Your task to perform on an android device: open the mobile data screen to see how much data has been used Image 0: 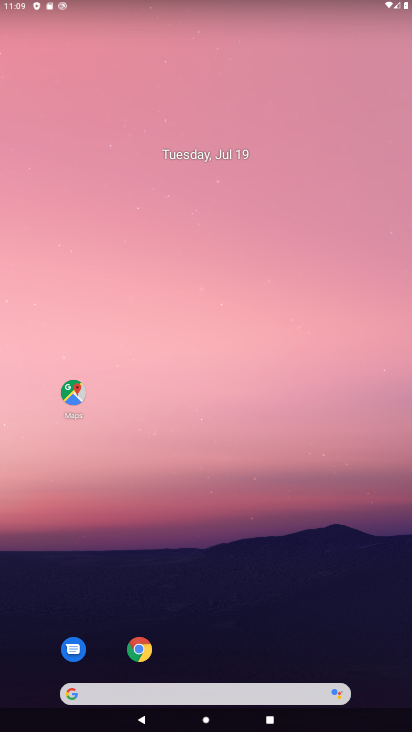
Step 0: drag from (328, 695) to (349, 88)
Your task to perform on an android device: open the mobile data screen to see how much data has been used Image 1: 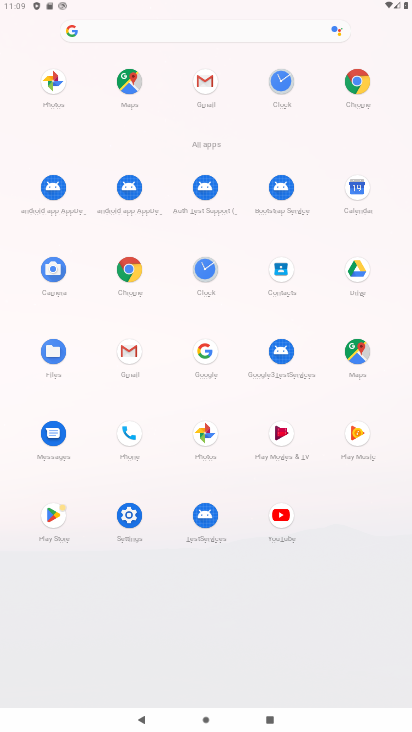
Step 1: click (126, 524)
Your task to perform on an android device: open the mobile data screen to see how much data has been used Image 2: 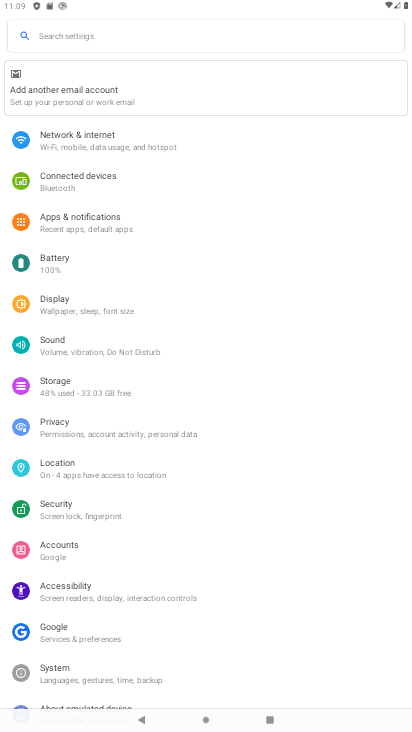
Step 2: click (162, 143)
Your task to perform on an android device: open the mobile data screen to see how much data has been used Image 3: 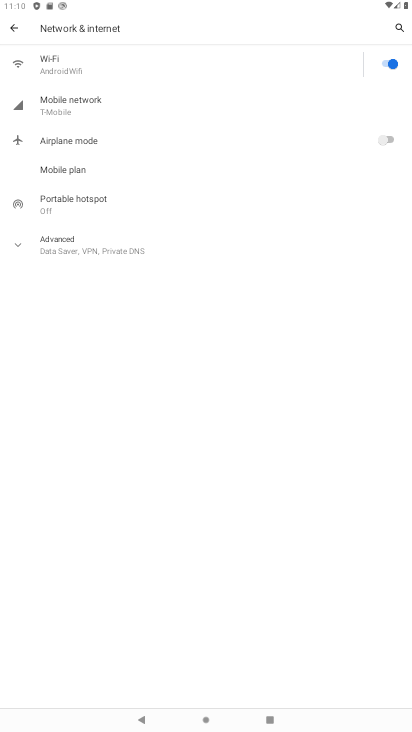
Step 3: click (106, 103)
Your task to perform on an android device: open the mobile data screen to see how much data has been used Image 4: 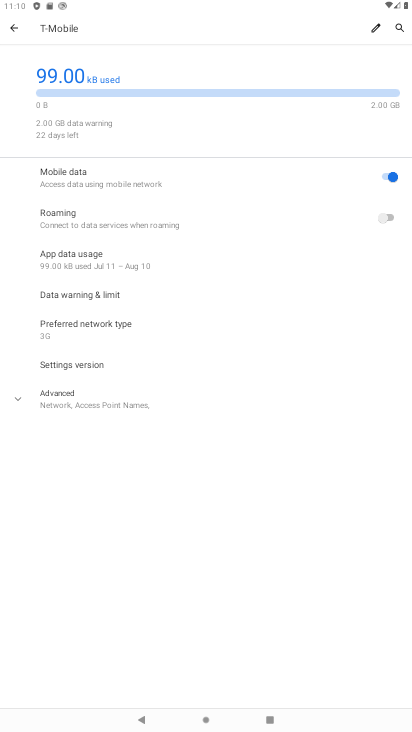
Step 4: task complete